Your task to perform on an android device: Check the weather Image 0: 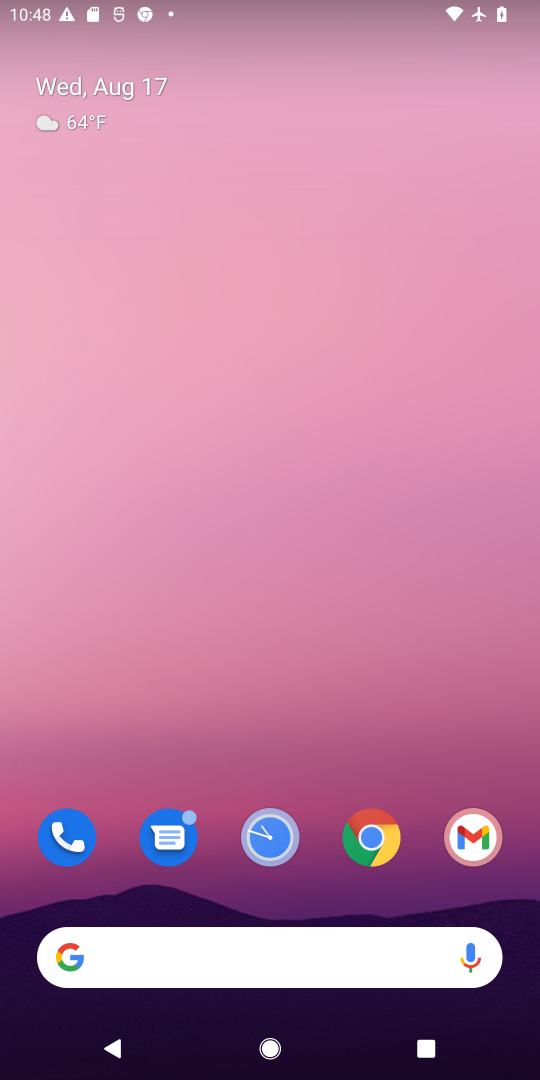
Step 0: drag from (226, 968) to (313, 78)
Your task to perform on an android device: Check the weather Image 1: 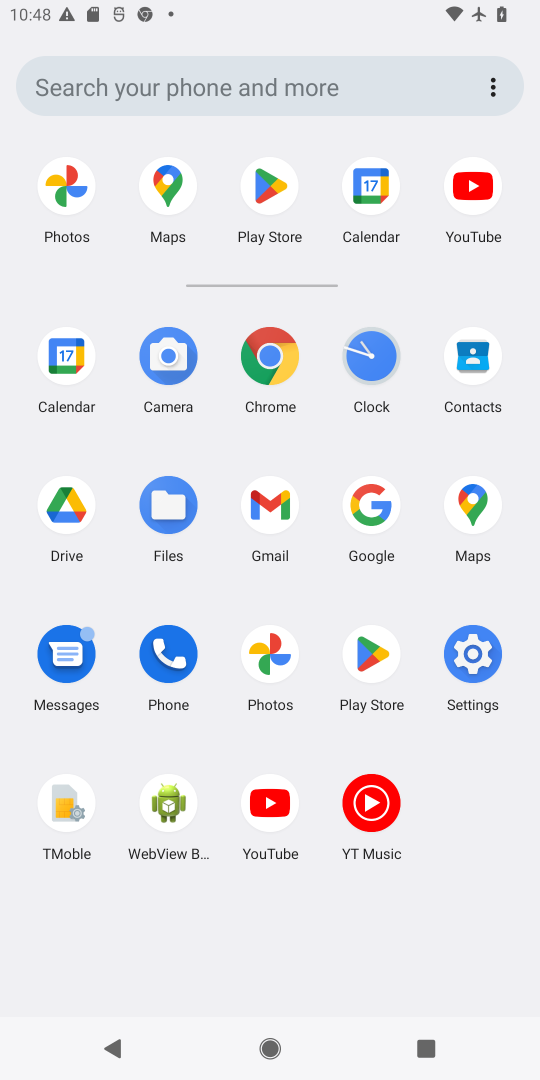
Step 1: click (365, 506)
Your task to perform on an android device: Check the weather Image 2: 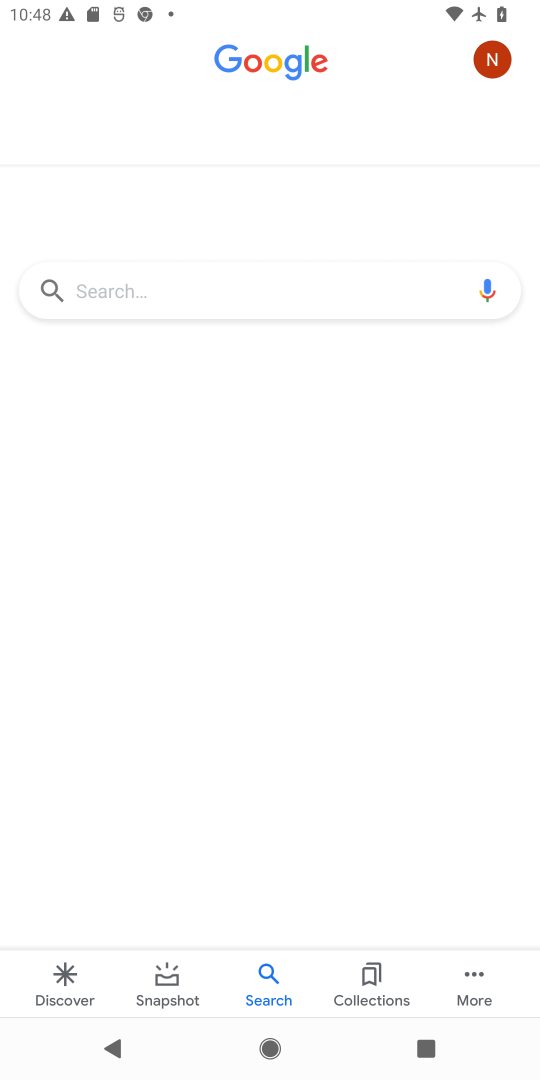
Step 2: click (291, 305)
Your task to perform on an android device: Check the weather Image 3: 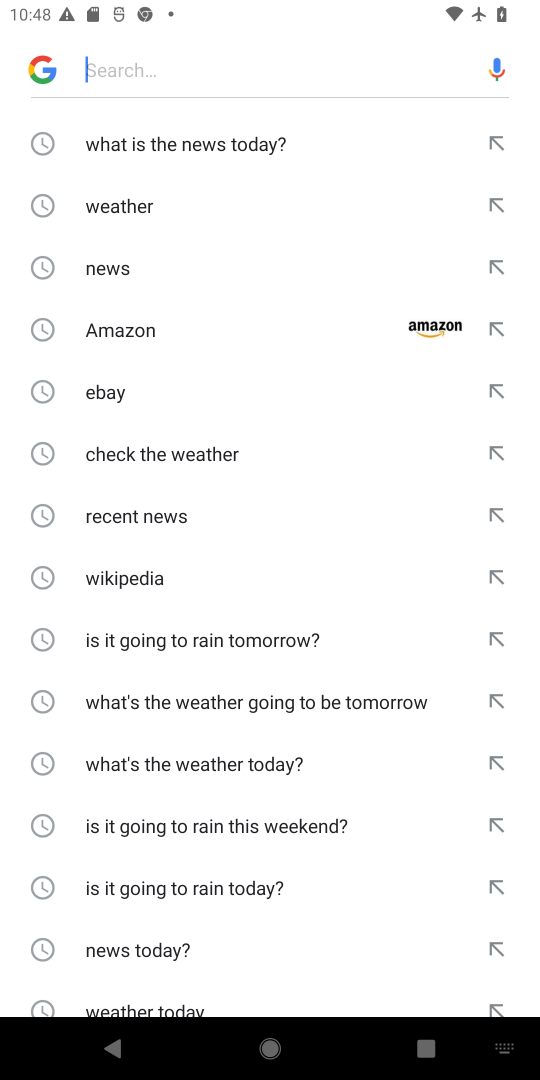
Step 3: click (137, 211)
Your task to perform on an android device: Check the weather Image 4: 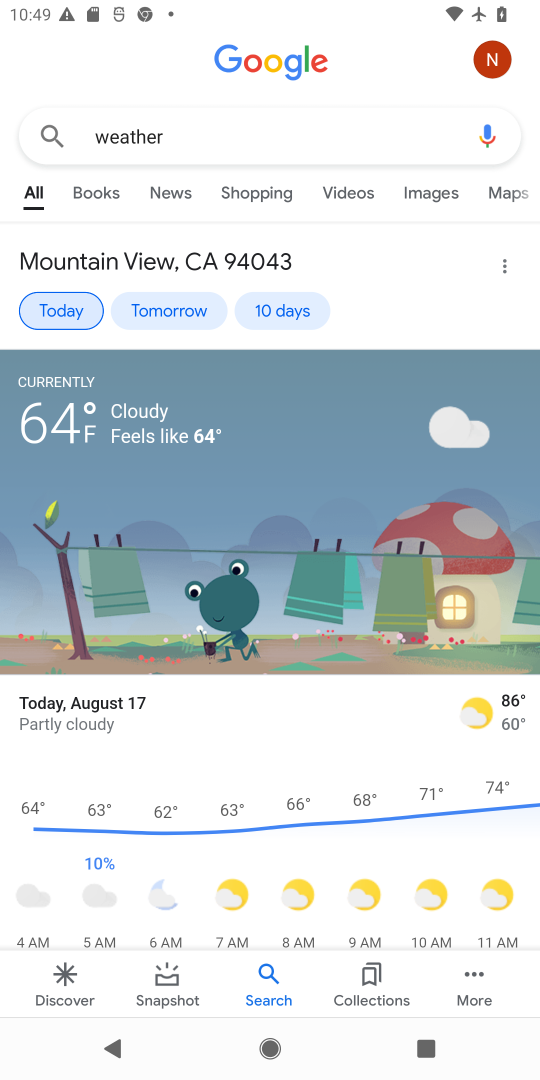
Step 4: task complete